Your task to perform on an android device: refresh tabs in the chrome app Image 0: 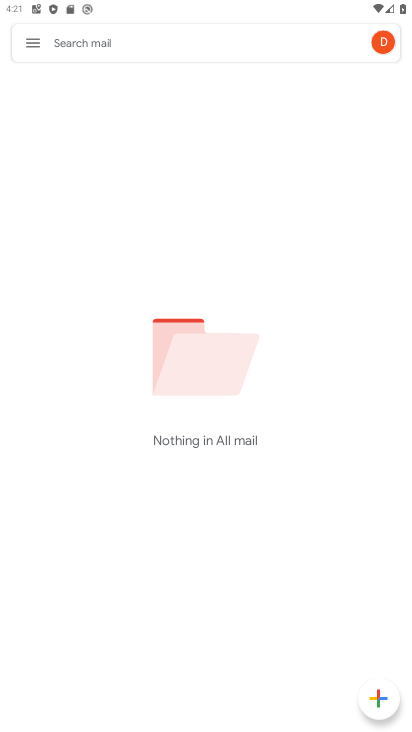
Step 0: press home button
Your task to perform on an android device: refresh tabs in the chrome app Image 1: 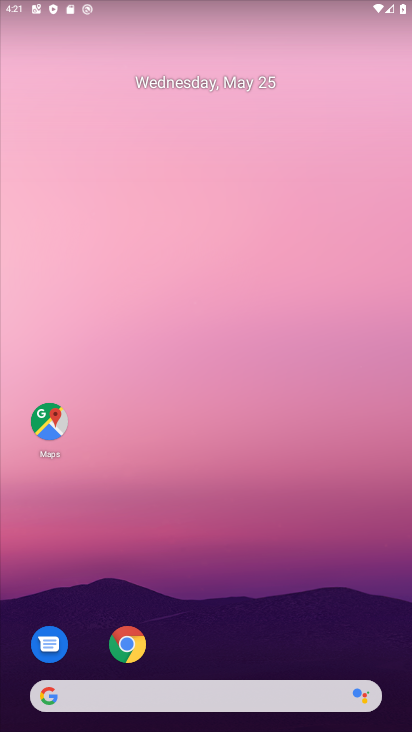
Step 1: click (133, 646)
Your task to perform on an android device: refresh tabs in the chrome app Image 2: 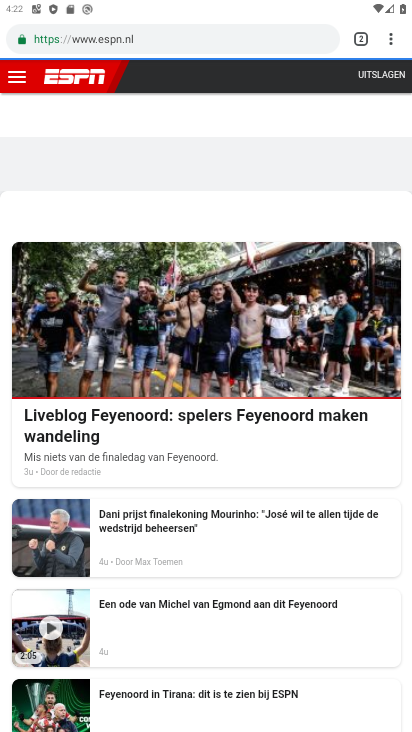
Step 2: click (388, 38)
Your task to perform on an android device: refresh tabs in the chrome app Image 3: 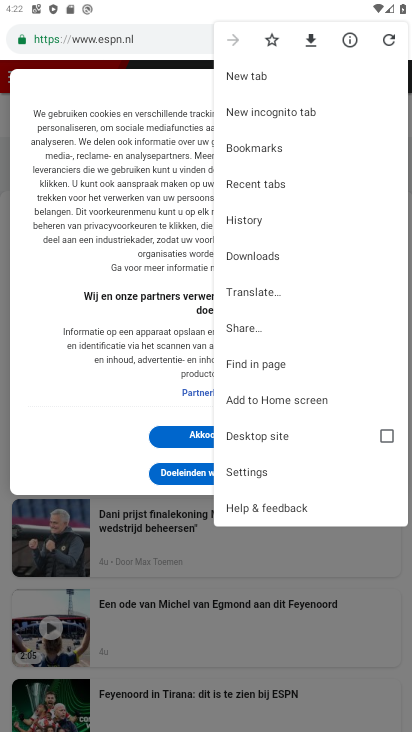
Step 3: click (387, 35)
Your task to perform on an android device: refresh tabs in the chrome app Image 4: 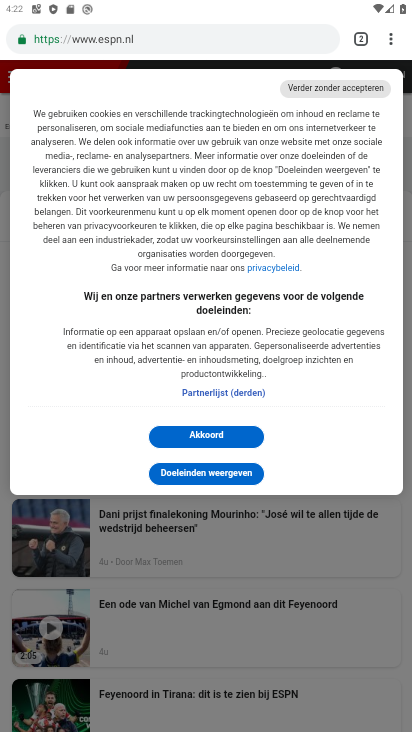
Step 4: task complete